Your task to perform on an android device: What is the news today? Image 0: 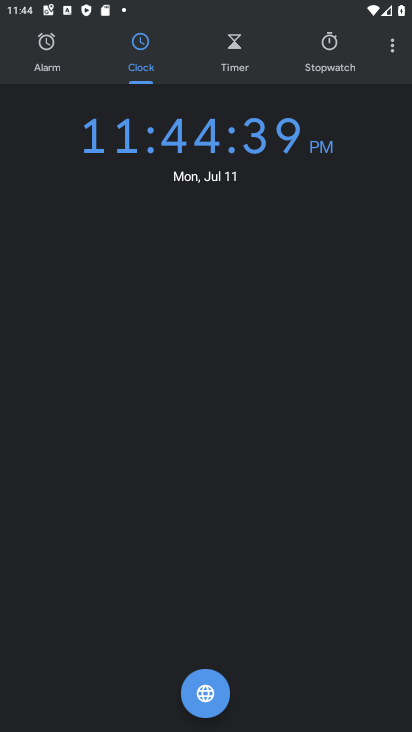
Step 0: press home button
Your task to perform on an android device: What is the news today? Image 1: 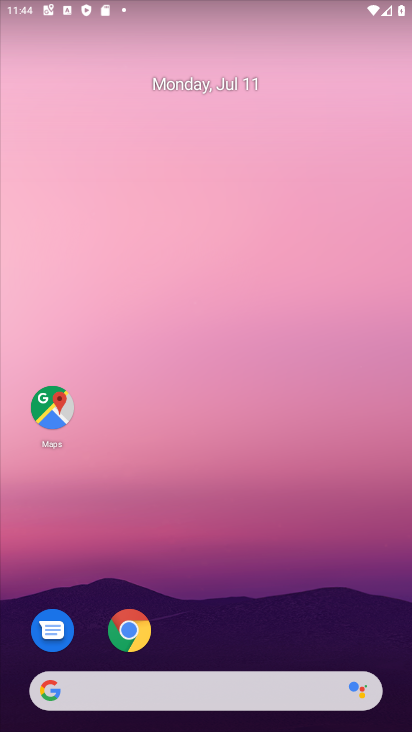
Step 1: task complete